Your task to perform on an android device: remove spam from my inbox in the gmail app Image 0: 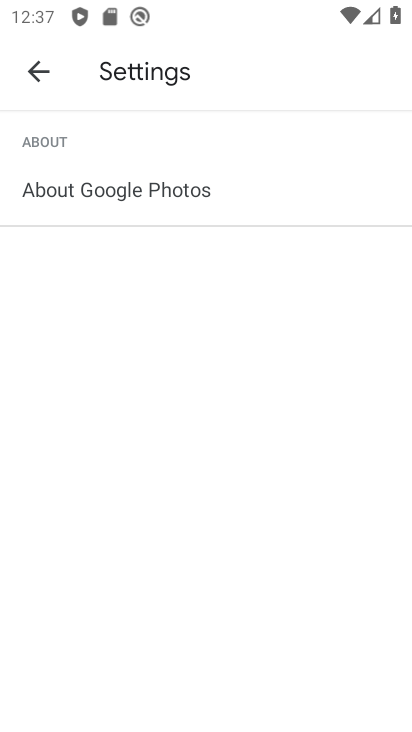
Step 0: press home button
Your task to perform on an android device: remove spam from my inbox in the gmail app Image 1: 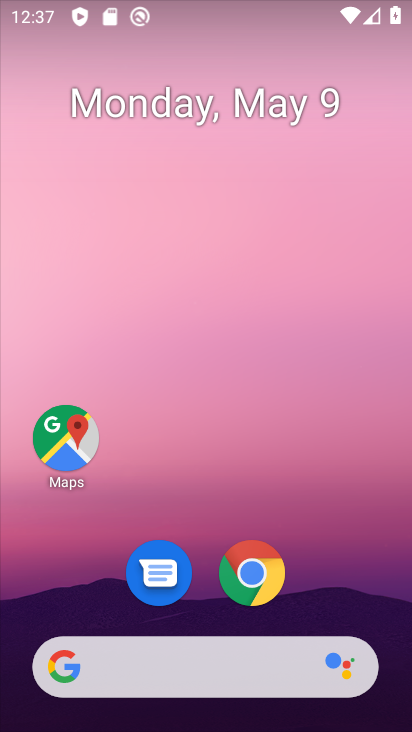
Step 1: drag from (306, 513) to (112, 126)
Your task to perform on an android device: remove spam from my inbox in the gmail app Image 2: 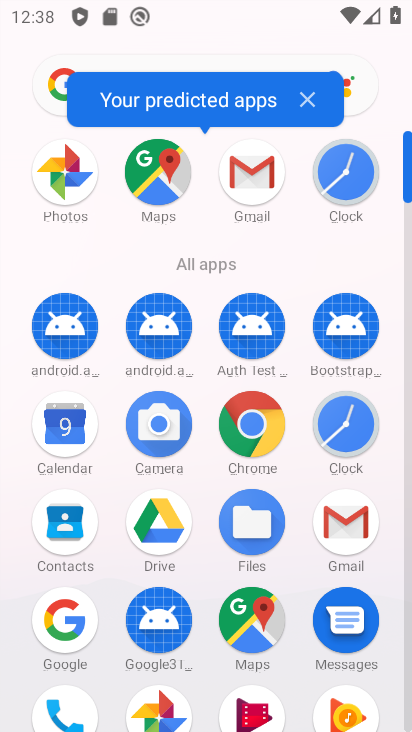
Step 2: click (254, 177)
Your task to perform on an android device: remove spam from my inbox in the gmail app Image 3: 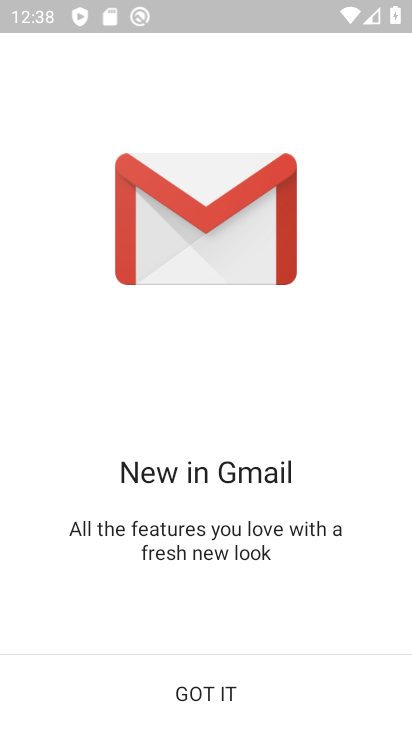
Step 3: click (216, 690)
Your task to perform on an android device: remove spam from my inbox in the gmail app Image 4: 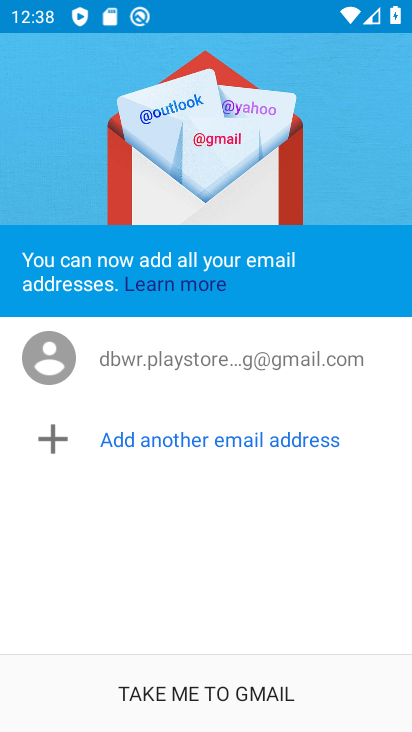
Step 4: click (216, 690)
Your task to perform on an android device: remove spam from my inbox in the gmail app Image 5: 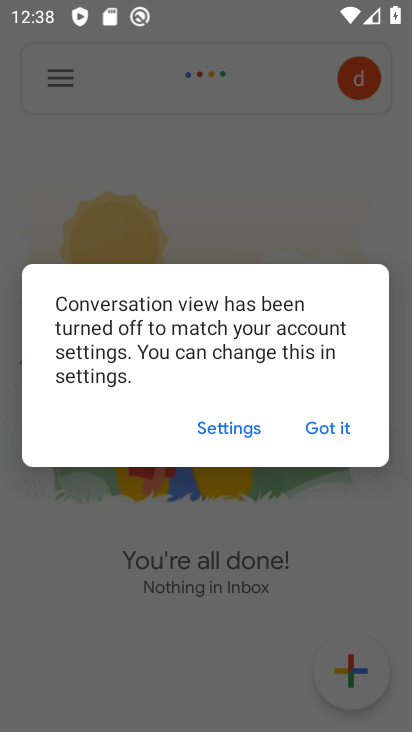
Step 5: click (328, 426)
Your task to perform on an android device: remove spam from my inbox in the gmail app Image 6: 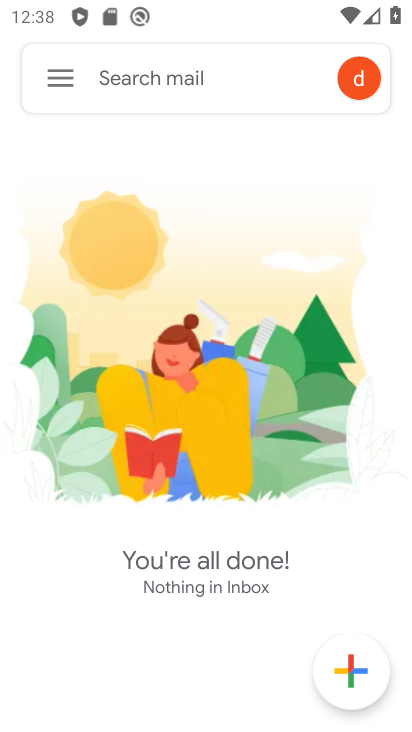
Step 6: click (61, 82)
Your task to perform on an android device: remove spam from my inbox in the gmail app Image 7: 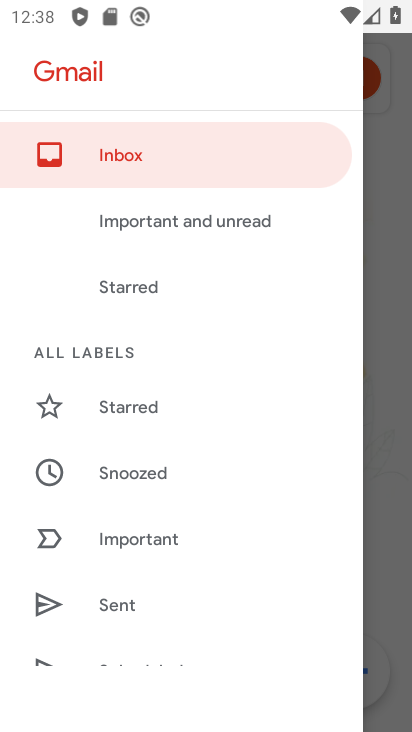
Step 7: drag from (146, 604) to (142, 274)
Your task to perform on an android device: remove spam from my inbox in the gmail app Image 8: 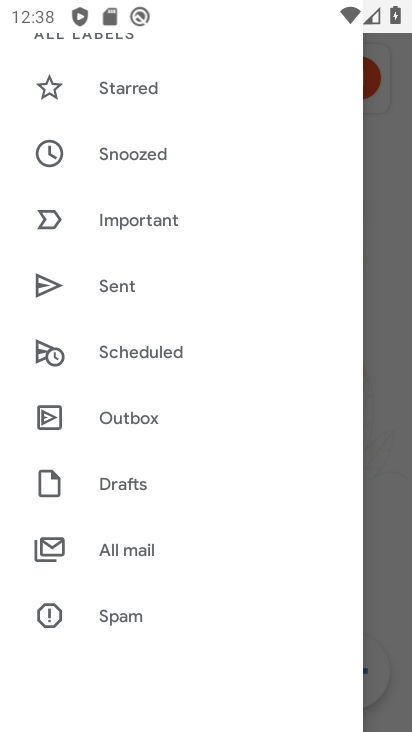
Step 8: click (134, 608)
Your task to perform on an android device: remove spam from my inbox in the gmail app Image 9: 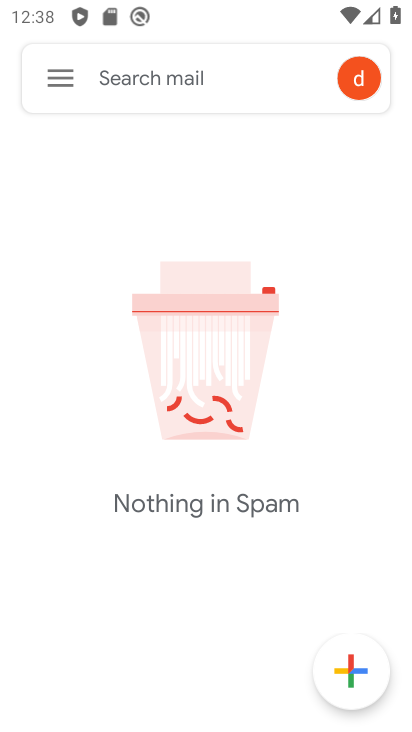
Step 9: task complete